Your task to perform on an android device: Go to Yahoo.com Image 0: 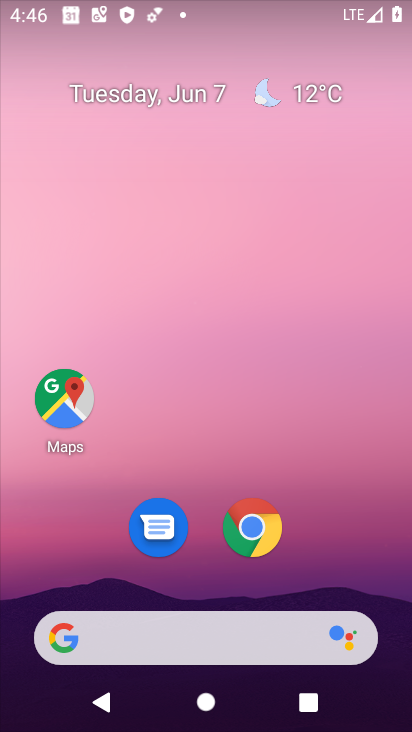
Step 0: click (254, 526)
Your task to perform on an android device: Go to Yahoo.com Image 1: 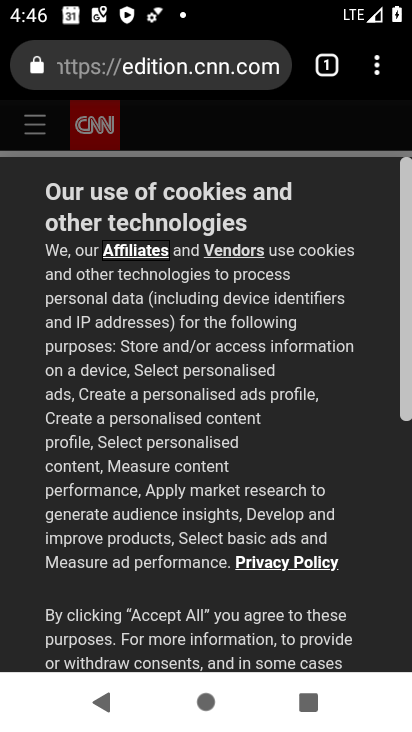
Step 1: click (208, 69)
Your task to perform on an android device: Go to Yahoo.com Image 2: 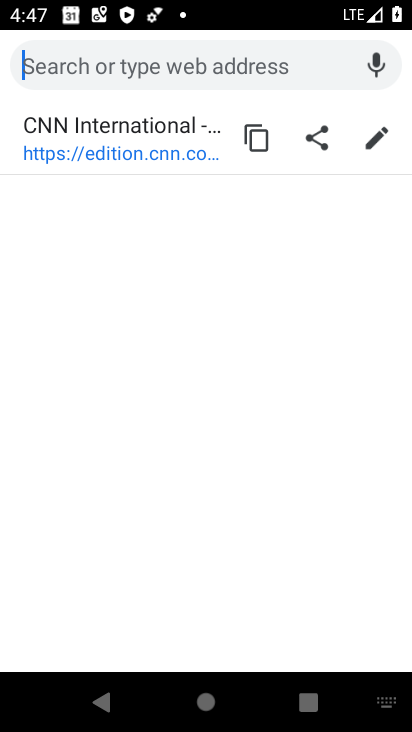
Step 2: type "Yahoo.com"
Your task to perform on an android device: Go to Yahoo.com Image 3: 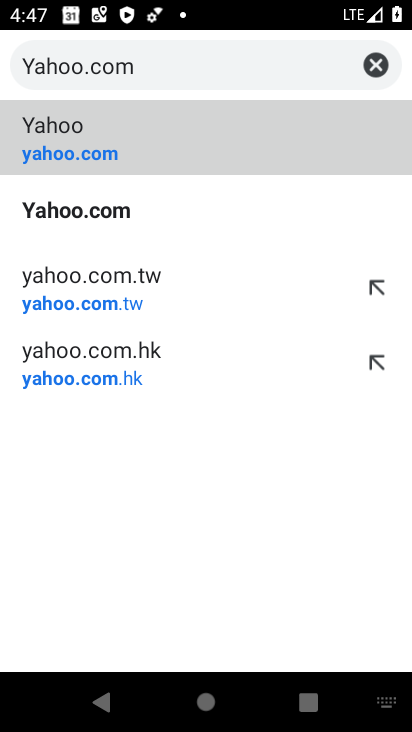
Step 3: click (98, 163)
Your task to perform on an android device: Go to Yahoo.com Image 4: 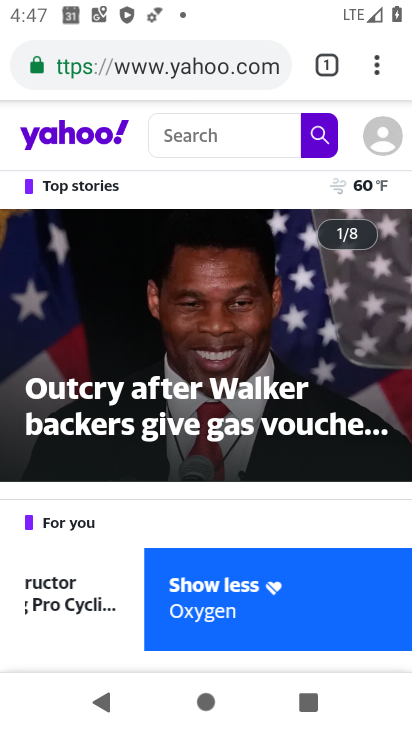
Step 4: task complete